Your task to perform on an android device: Go to notification settings Image 0: 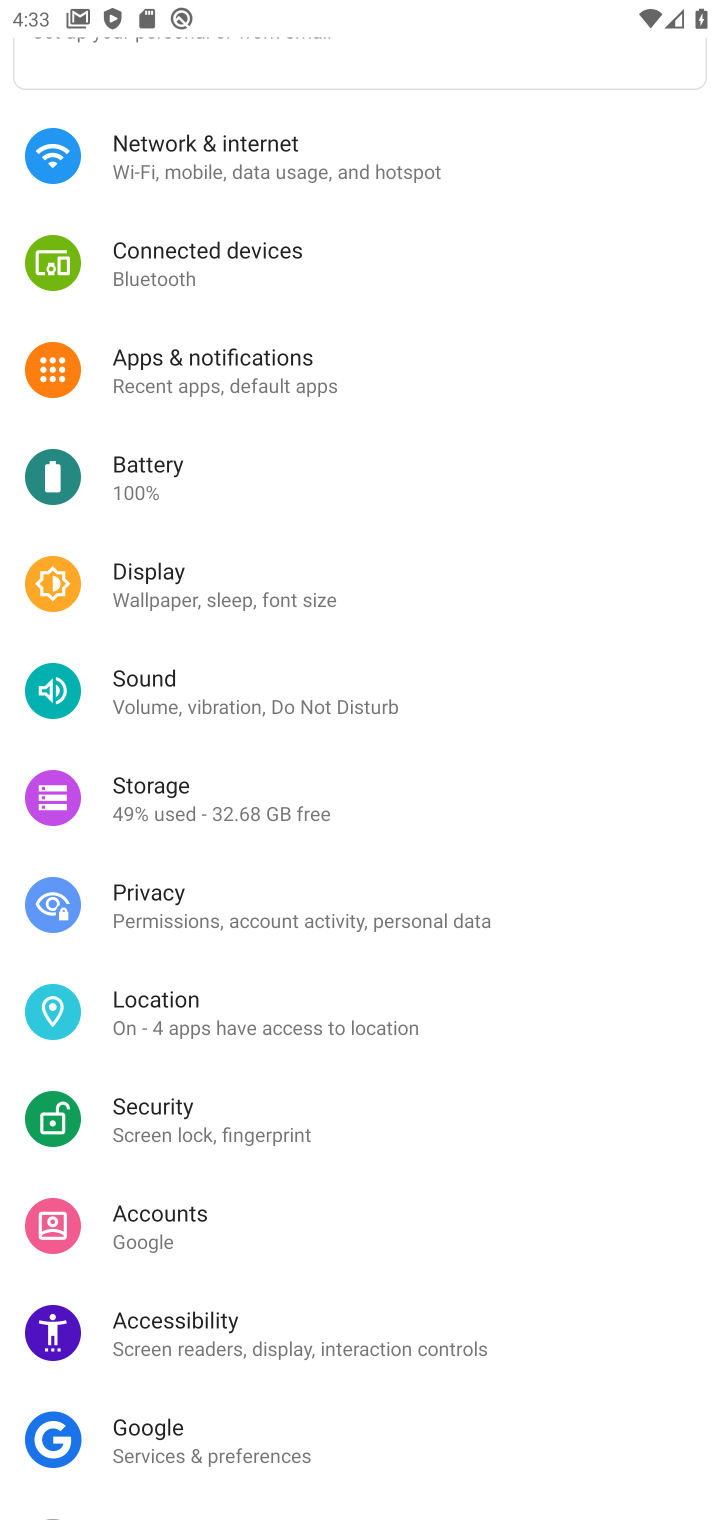
Step 0: click (244, 374)
Your task to perform on an android device: Go to notification settings Image 1: 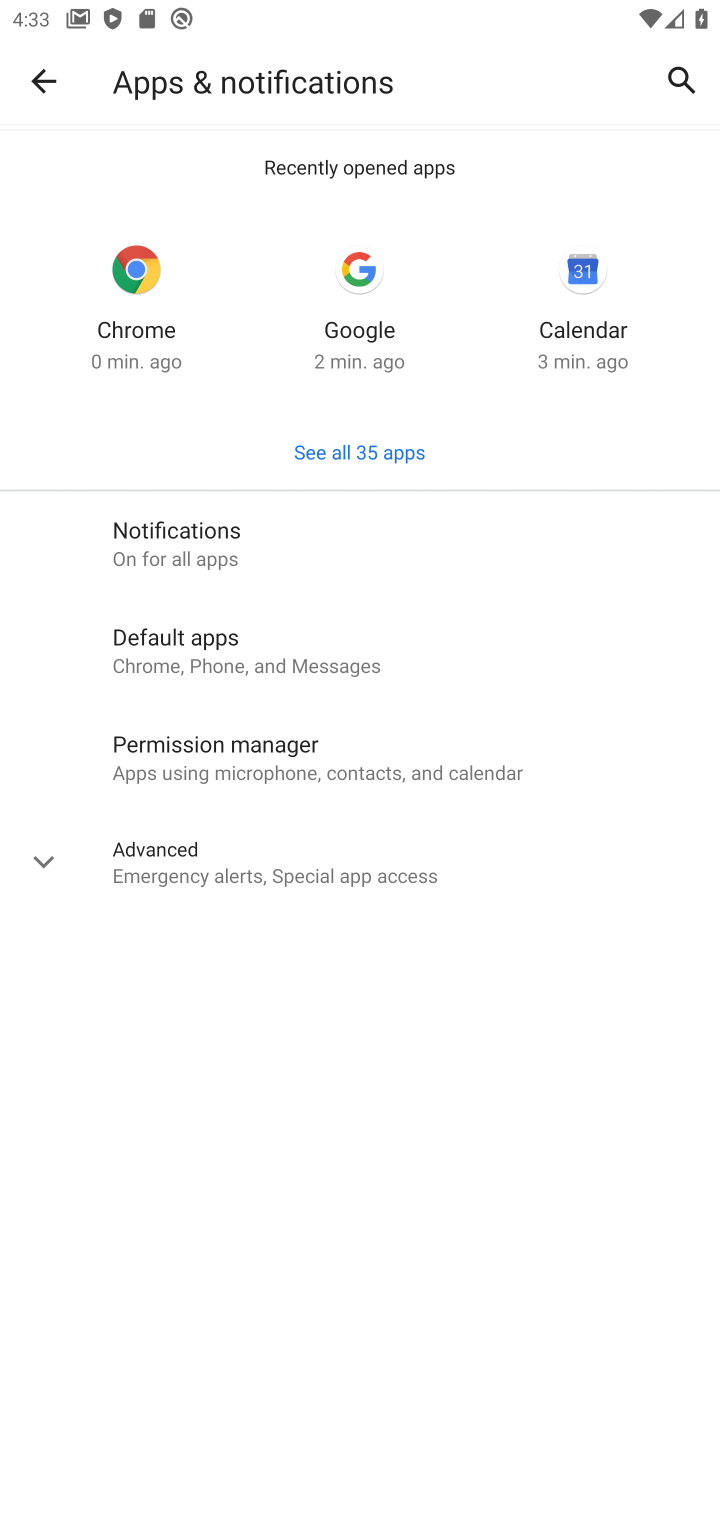
Step 1: click (174, 547)
Your task to perform on an android device: Go to notification settings Image 2: 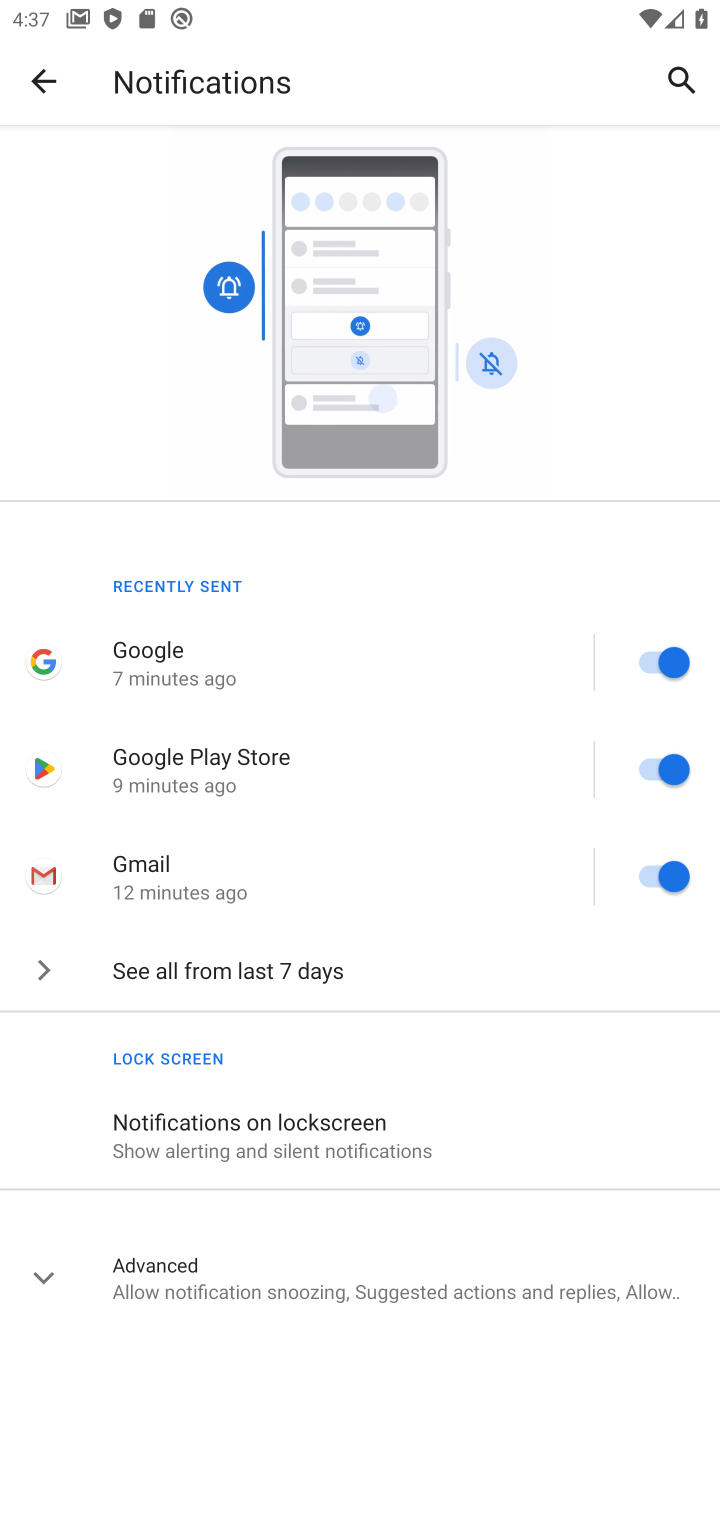
Step 2: task complete